Your task to perform on an android device: star an email in the gmail app Image 0: 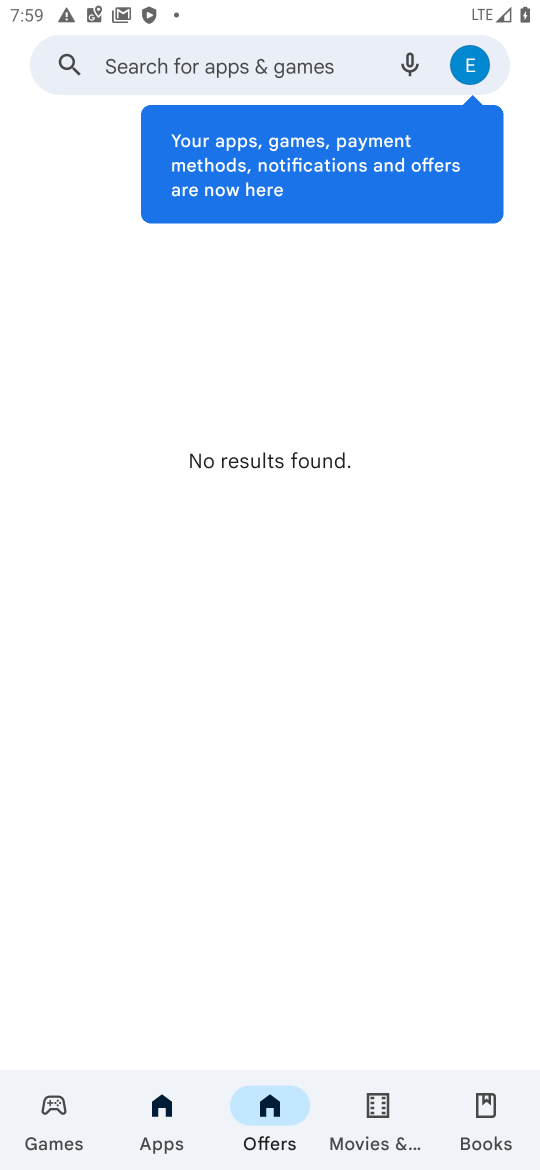
Step 0: press home button
Your task to perform on an android device: star an email in the gmail app Image 1: 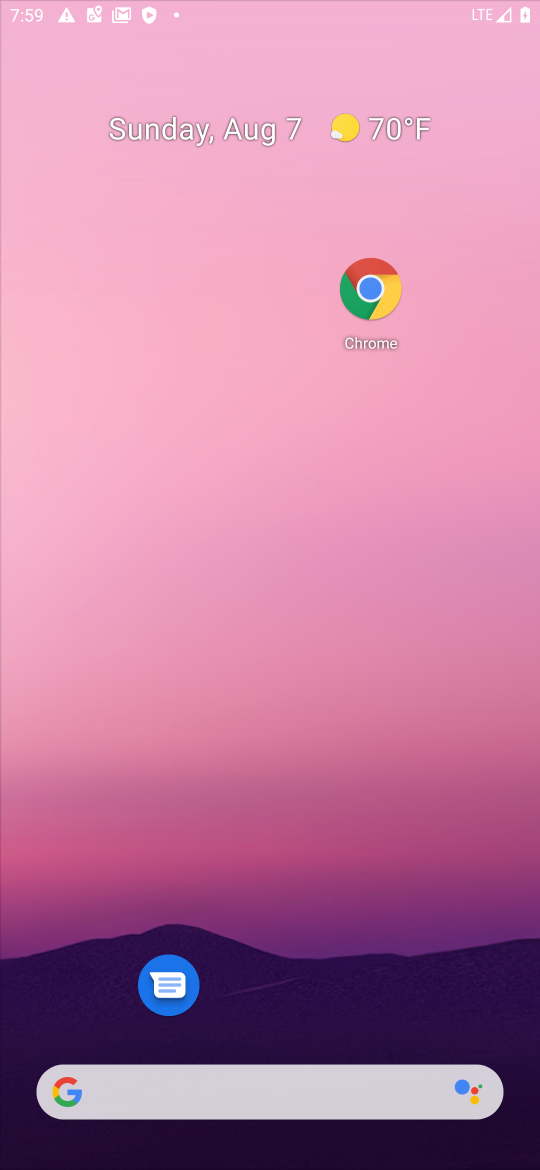
Step 1: drag from (268, 987) to (295, 22)
Your task to perform on an android device: star an email in the gmail app Image 2: 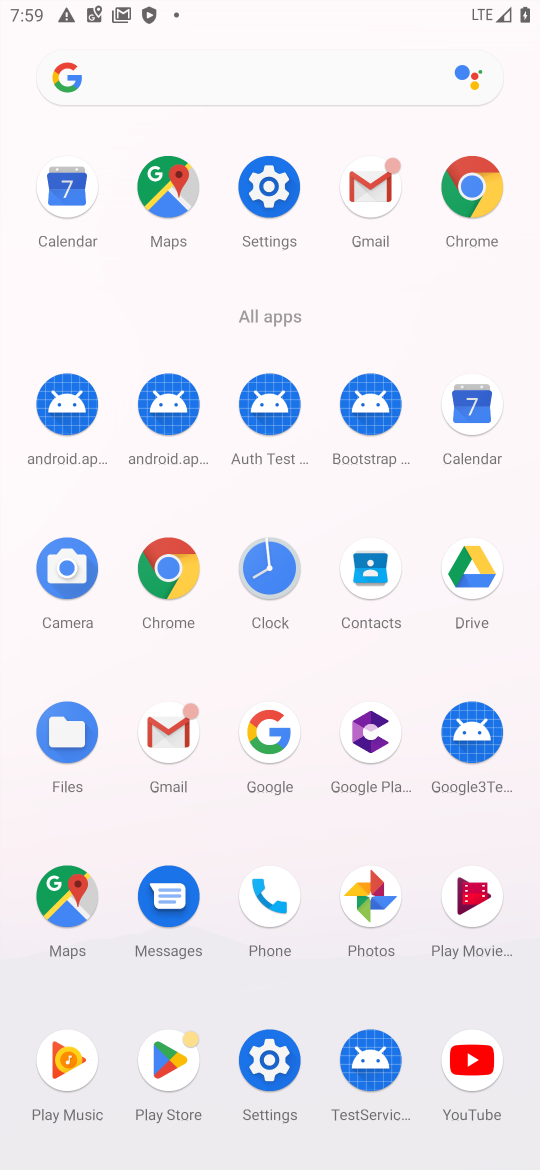
Step 2: click (370, 173)
Your task to perform on an android device: star an email in the gmail app Image 3: 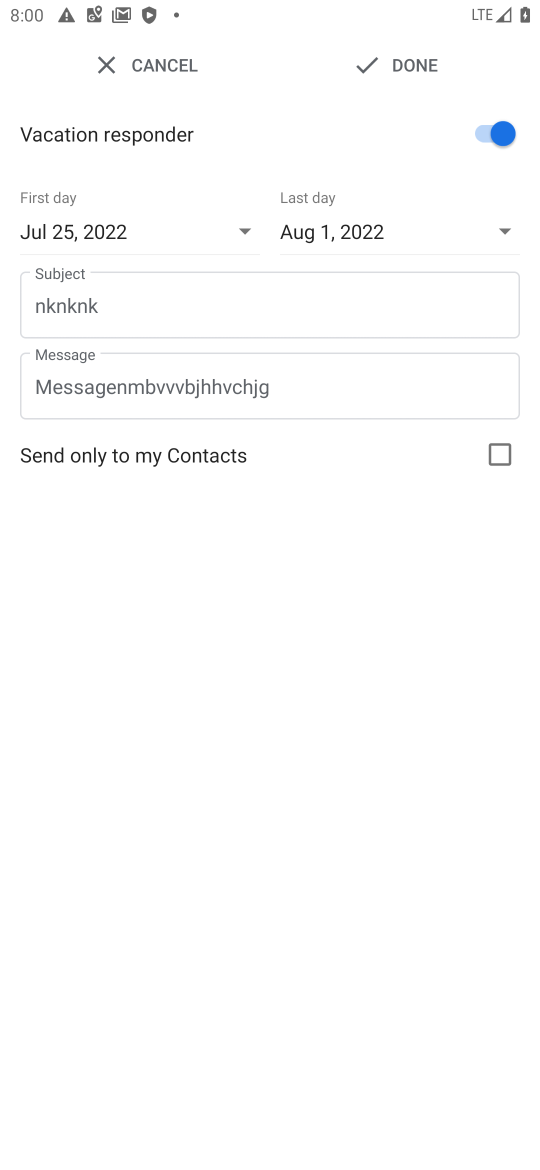
Step 3: click (82, 49)
Your task to perform on an android device: star an email in the gmail app Image 4: 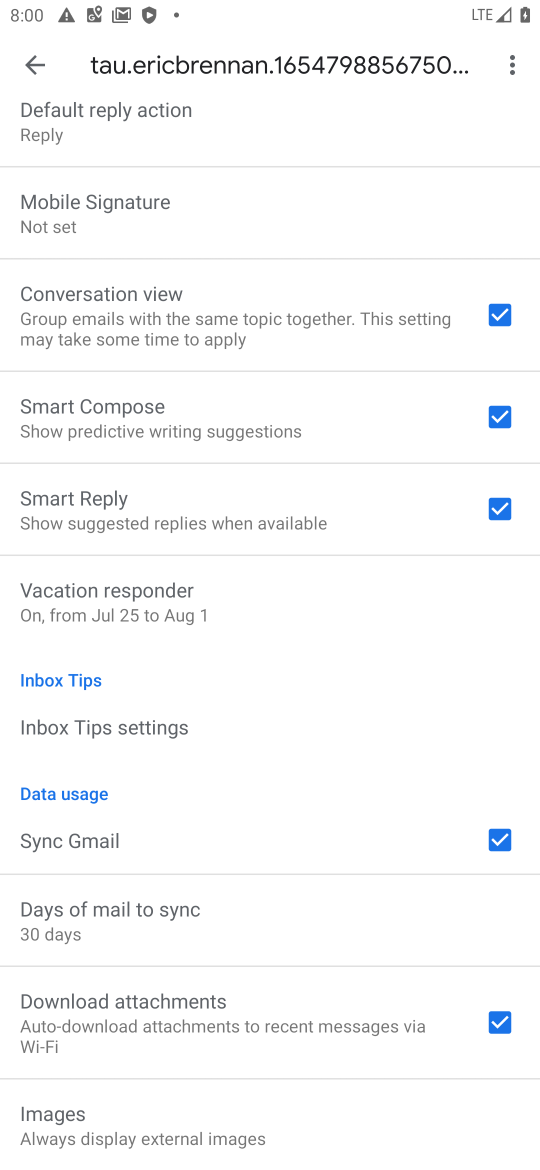
Step 4: click (27, 55)
Your task to perform on an android device: star an email in the gmail app Image 5: 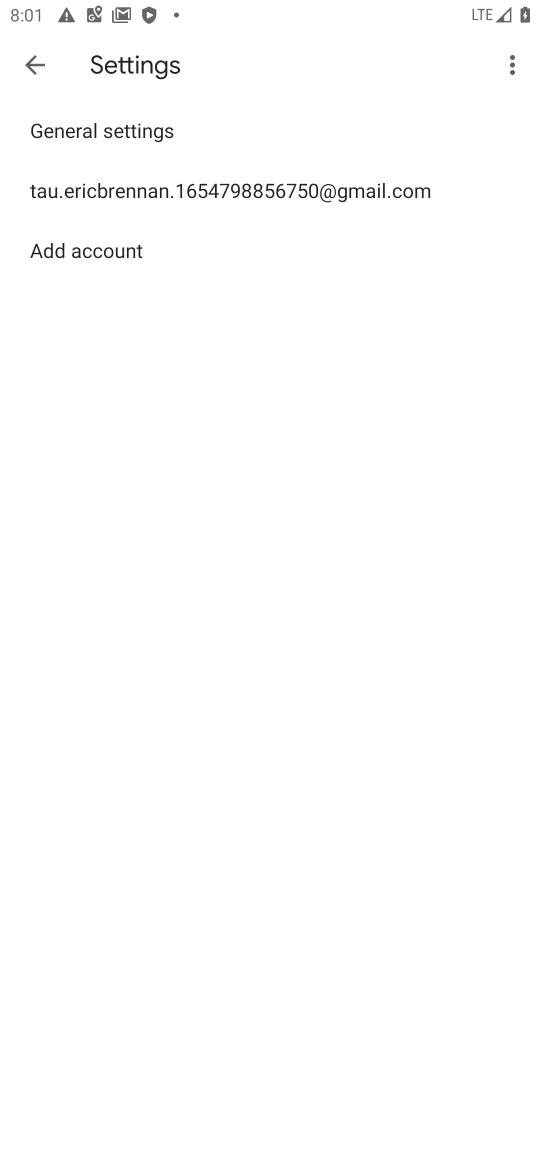
Step 5: click (41, 43)
Your task to perform on an android device: star an email in the gmail app Image 6: 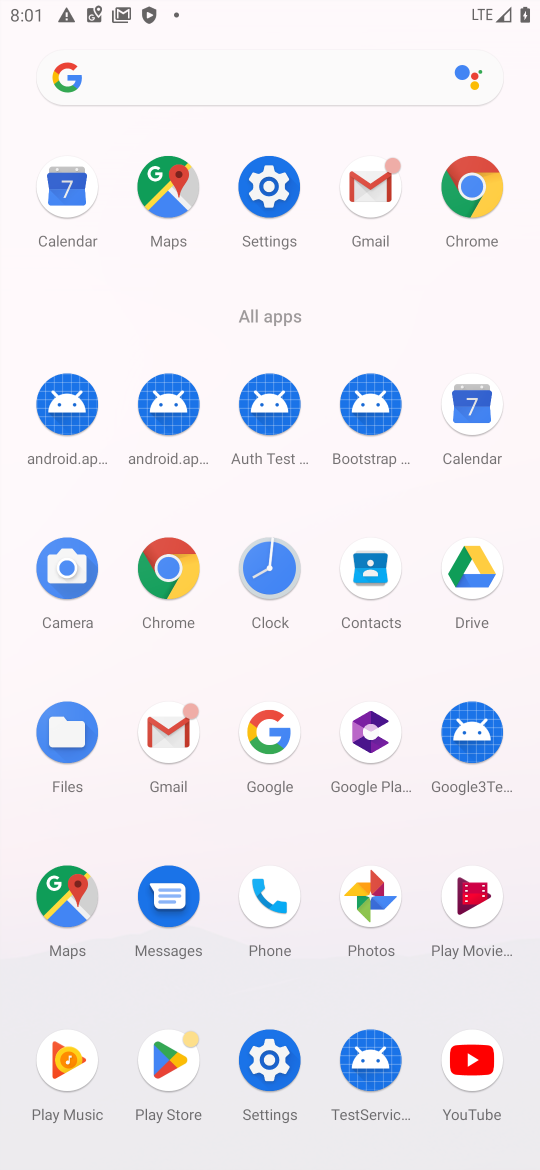
Step 6: click (347, 174)
Your task to perform on an android device: star an email in the gmail app Image 7: 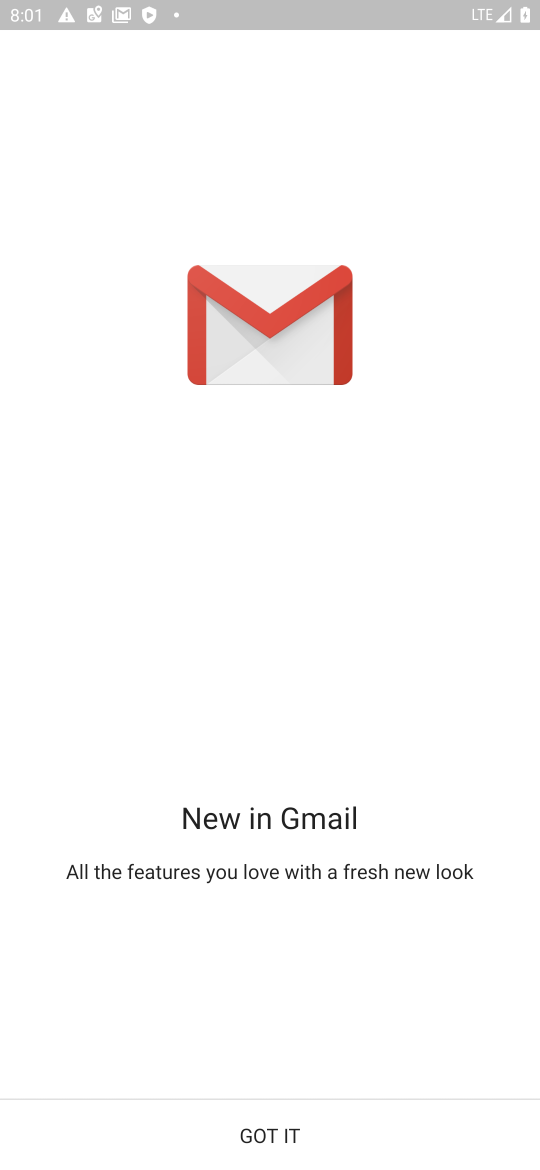
Step 7: click (288, 1143)
Your task to perform on an android device: star an email in the gmail app Image 8: 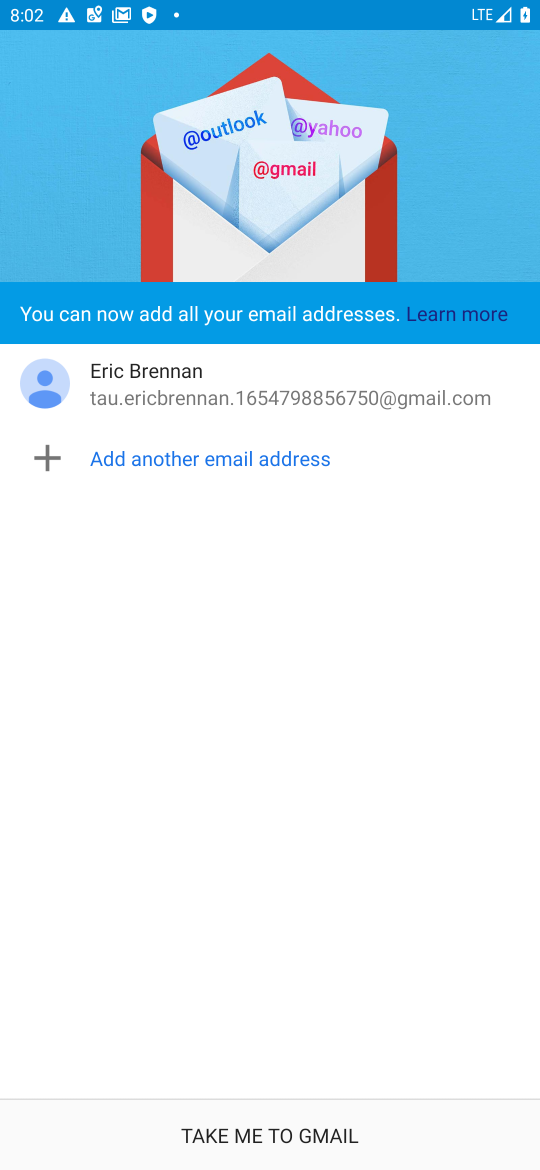
Step 8: click (269, 1135)
Your task to perform on an android device: star an email in the gmail app Image 9: 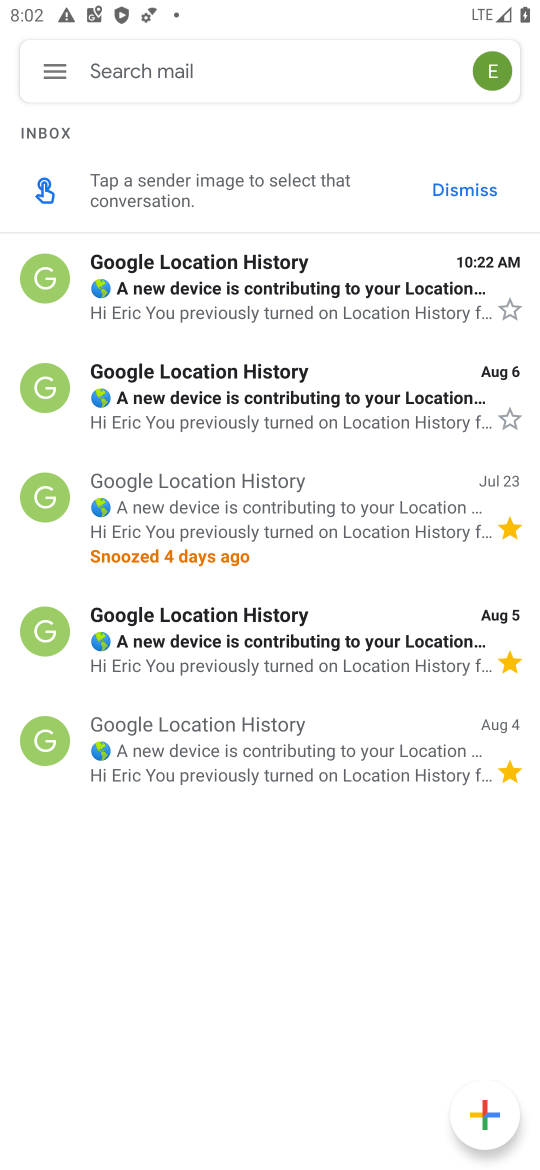
Step 9: task complete